Your task to perform on an android device: What's the weather going to be this weekend? Image 0: 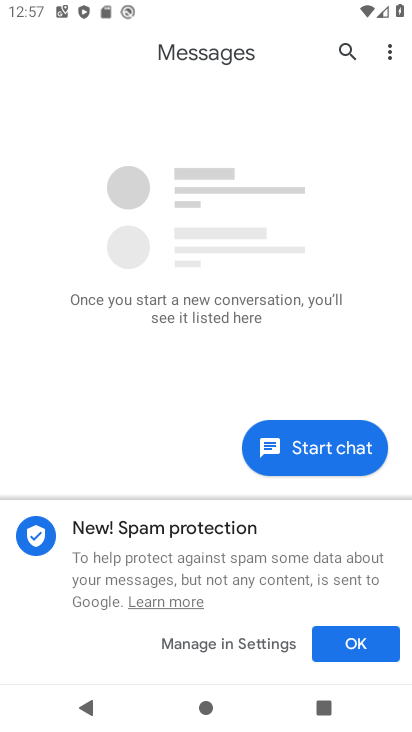
Step 0: press back button
Your task to perform on an android device: What's the weather going to be this weekend? Image 1: 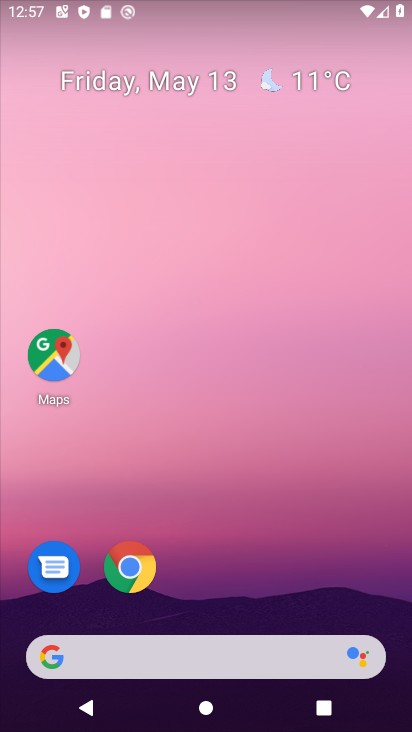
Step 1: click (301, 77)
Your task to perform on an android device: What's the weather going to be this weekend? Image 2: 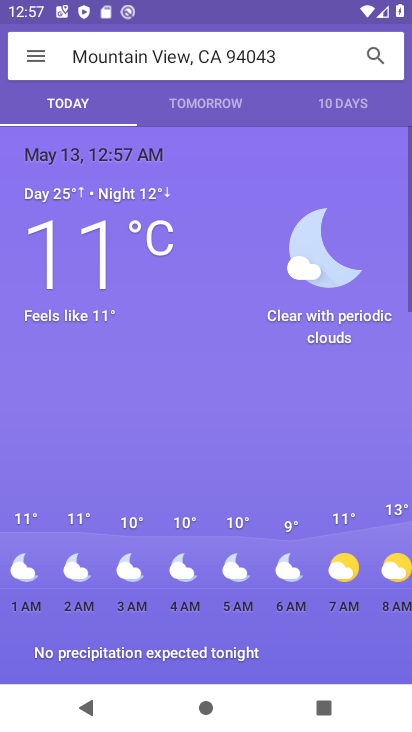
Step 2: click (349, 114)
Your task to perform on an android device: What's the weather going to be this weekend? Image 3: 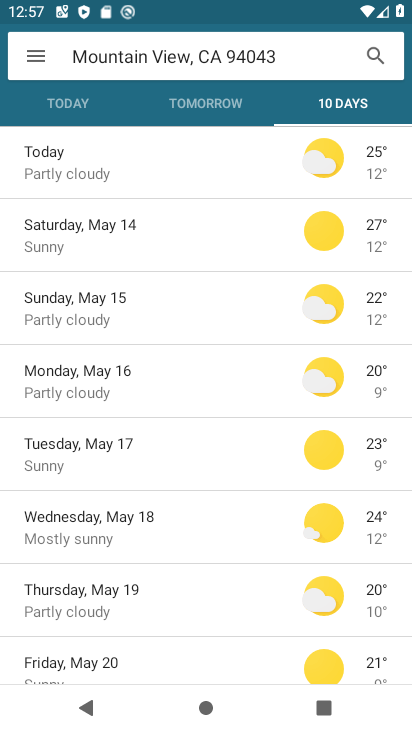
Step 3: task complete